Your task to perform on an android device: Open Wikipedia Image 0: 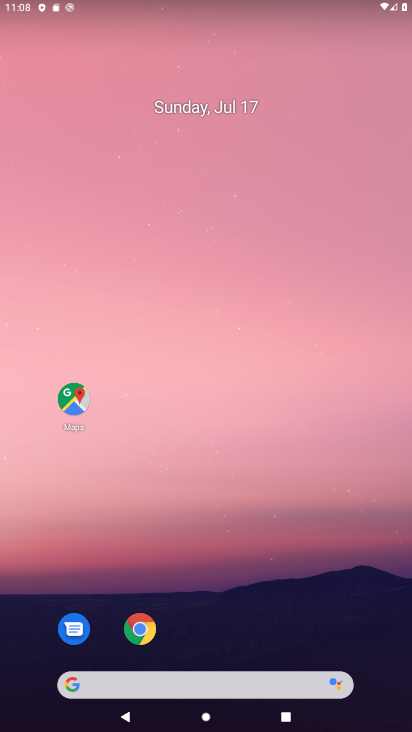
Step 0: drag from (247, 640) to (236, 307)
Your task to perform on an android device: Open Wikipedia Image 1: 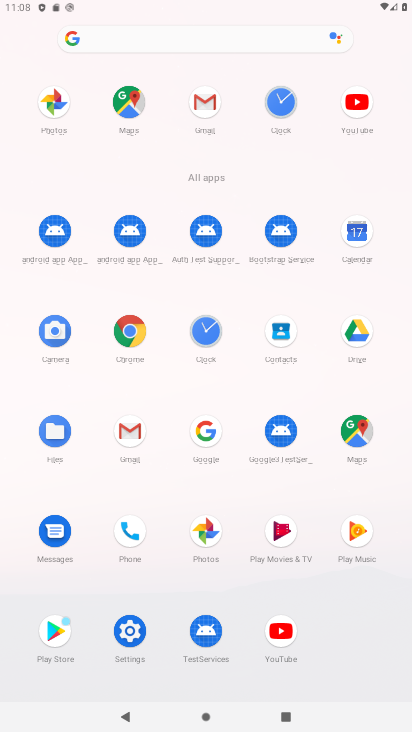
Step 1: click (121, 320)
Your task to perform on an android device: Open Wikipedia Image 2: 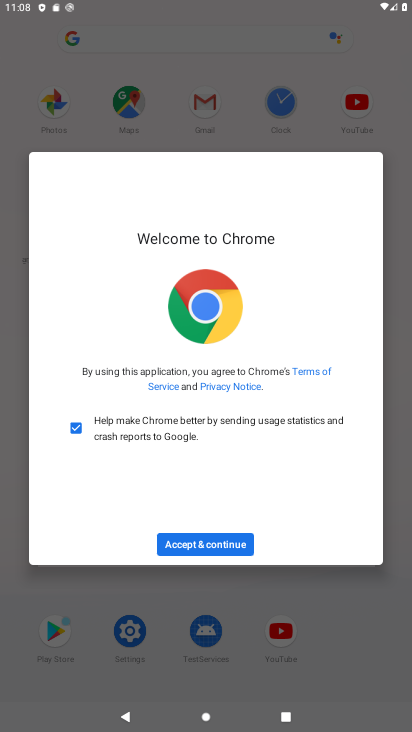
Step 2: click (210, 546)
Your task to perform on an android device: Open Wikipedia Image 3: 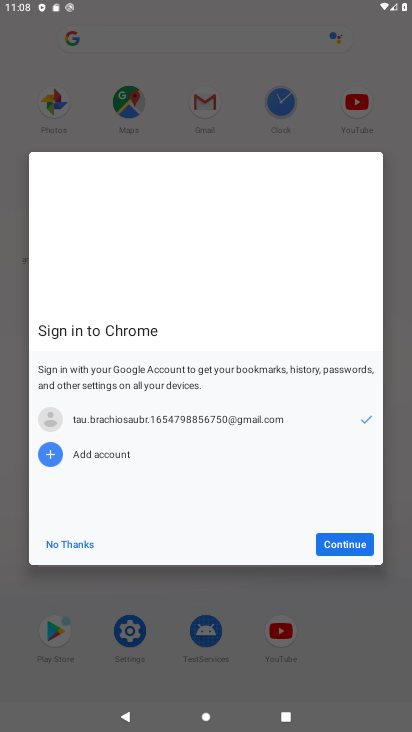
Step 3: click (335, 537)
Your task to perform on an android device: Open Wikipedia Image 4: 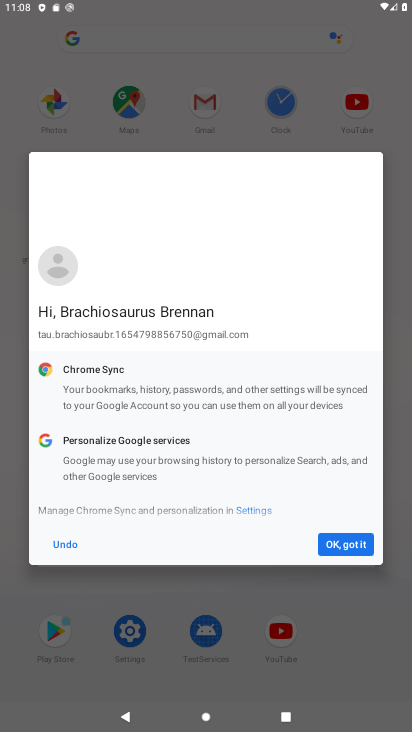
Step 4: click (343, 543)
Your task to perform on an android device: Open Wikipedia Image 5: 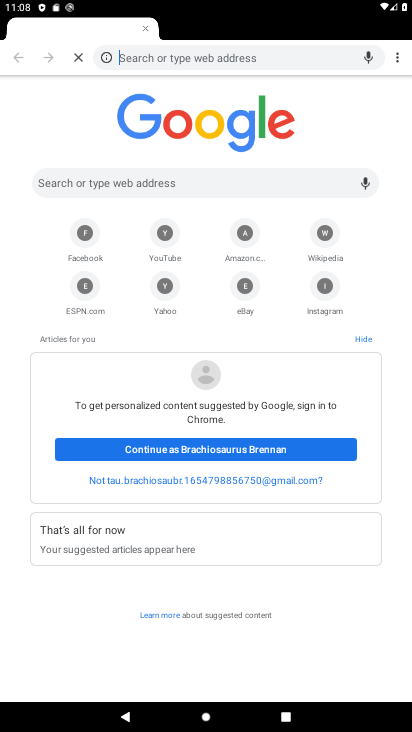
Step 5: click (401, 54)
Your task to perform on an android device: Open Wikipedia Image 6: 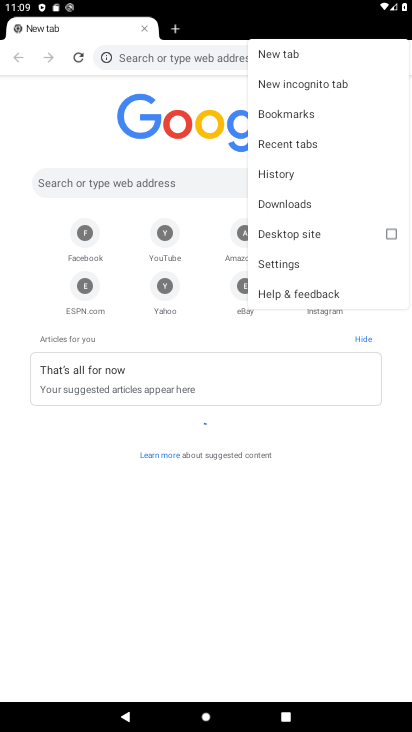
Step 6: click (43, 501)
Your task to perform on an android device: Open Wikipedia Image 7: 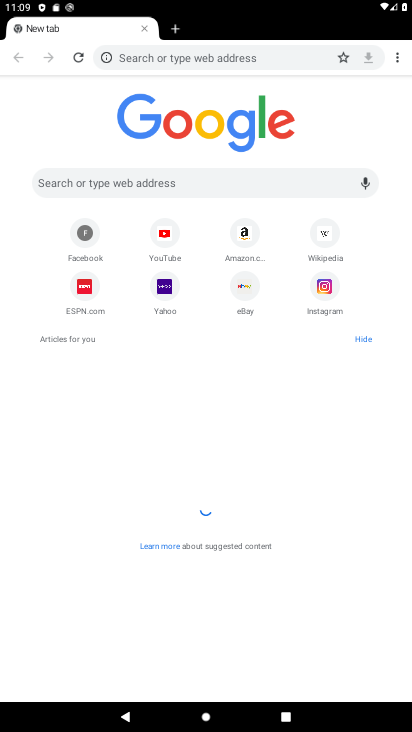
Step 7: click (326, 234)
Your task to perform on an android device: Open Wikipedia Image 8: 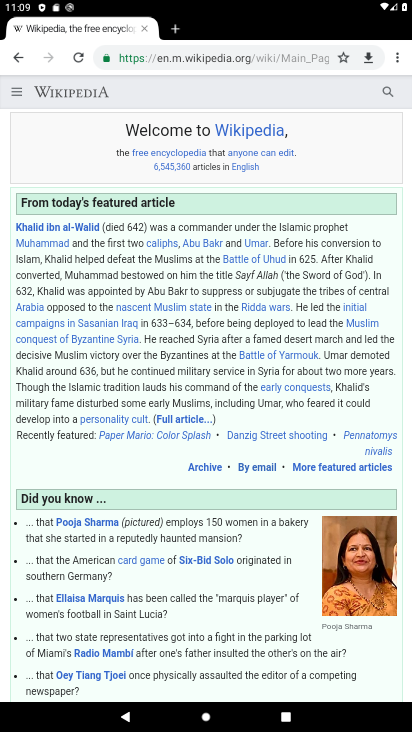
Step 8: task complete